Your task to perform on an android device: turn off javascript in the chrome app Image 0: 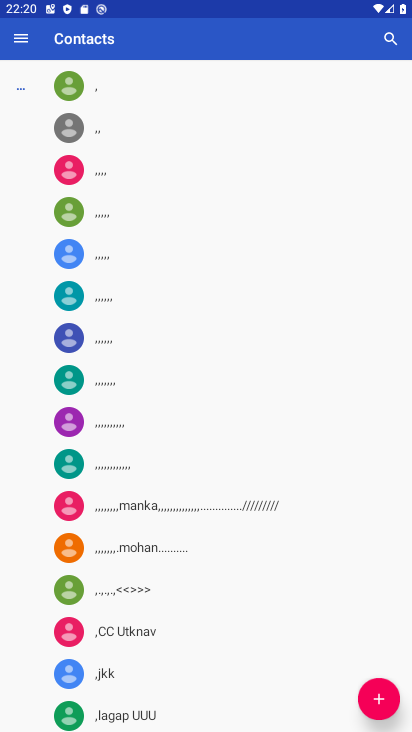
Step 0: drag from (237, 591) to (199, 188)
Your task to perform on an android device: turn off javascript in the chrome app Image 1: 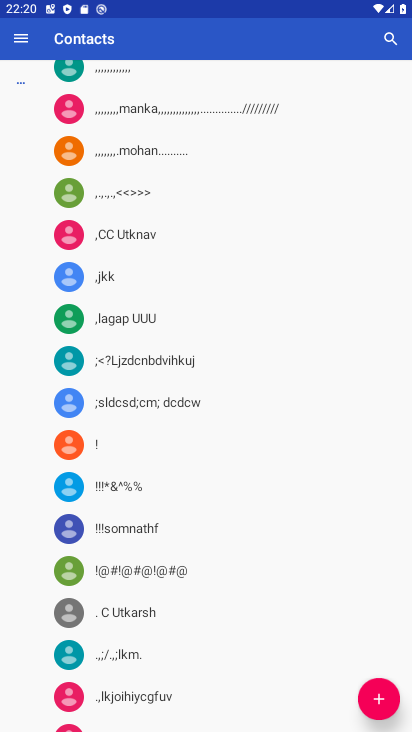
Step 1: press back button
Your task to perform on an android device: turn off javascript in the chrome app Image 2: 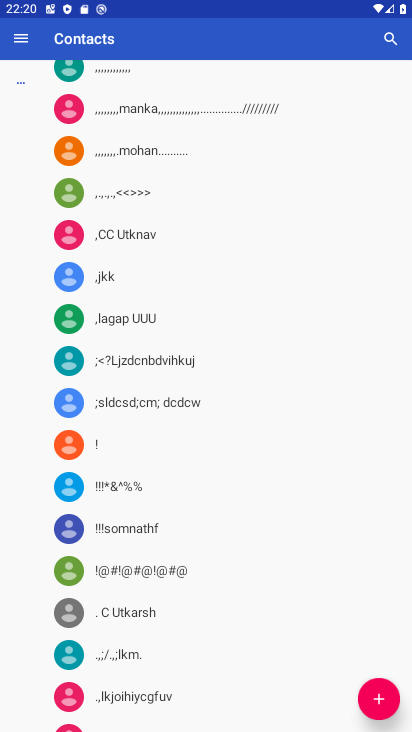
Step 2: press back button
Your task to perform on an android device: turn off javascript in the chrome app Image 3: 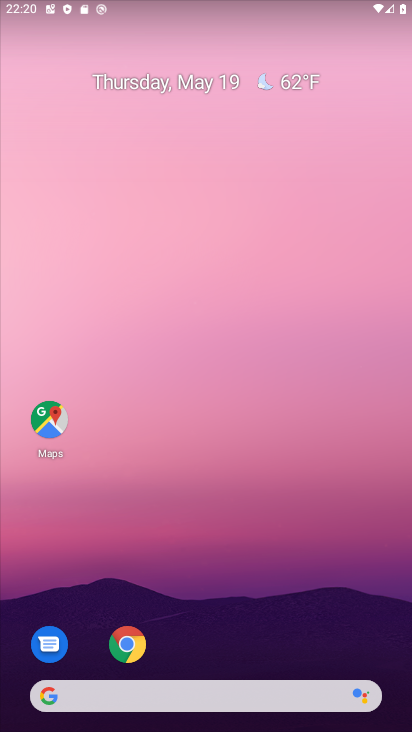
Step 3: drag from (279, 646) to (183, 3)
Your task to perform on an android device: turn off javascript in the chrome app Image 4: 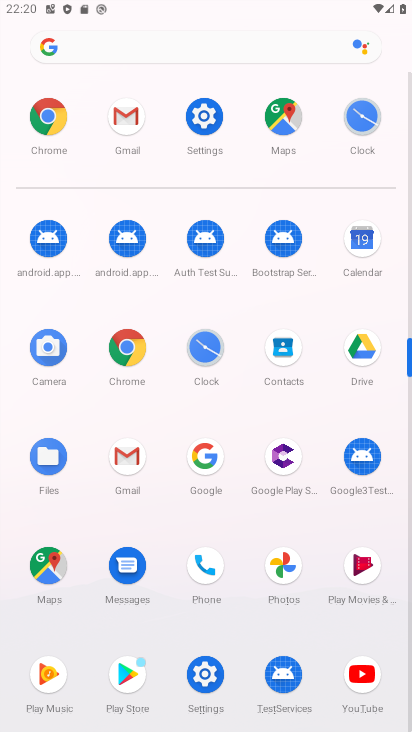
Step 4: click (122, 353)
Your task to perform on an android device: turn off javascript in the chrome app Image 5: 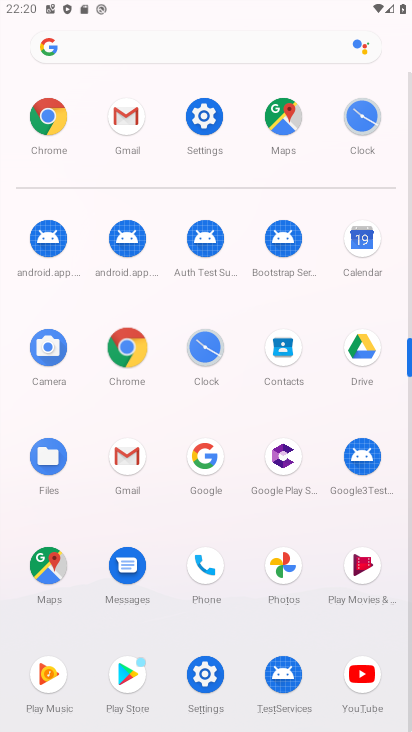
Step 5: click (122, 353)
Your task to perform on an android device: turn off javascript in the chrome app Image 6: 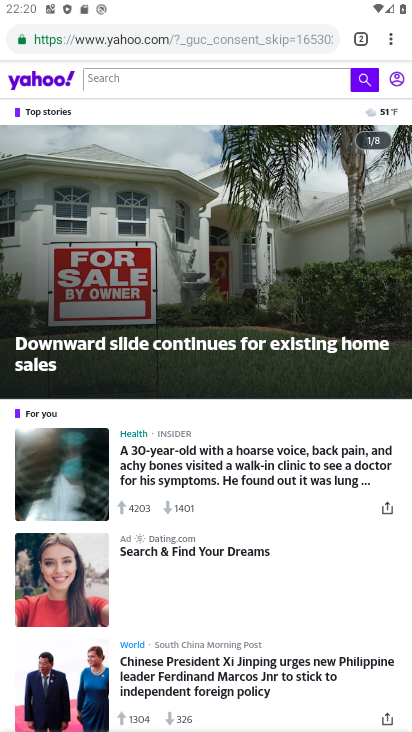
Step 6: drag from (387, 34) to (241, 519)
Your task to perform on an android device: turn off javascript in the chrome app Image 7: 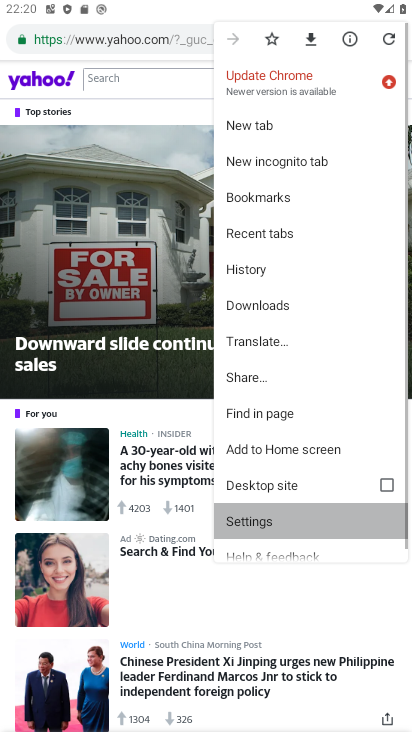
Step 7: click (242, 520)
Your task to perform on an android device: turn off javascript in the chrome app Image 8: 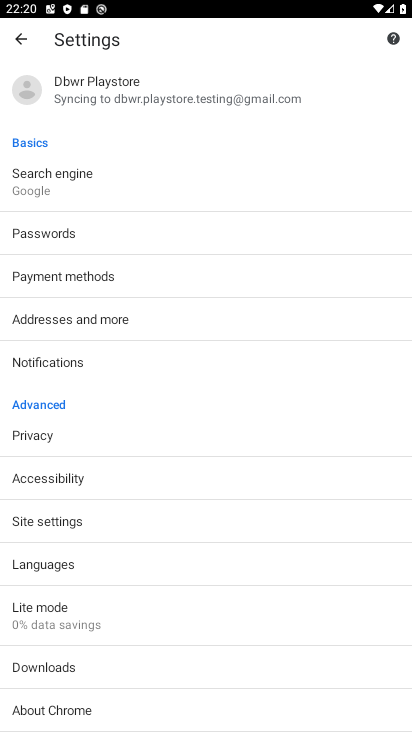
Step 8: click (40, 505)
Your task to perform on an android device: turn off javascript in the chrome app Image 9: 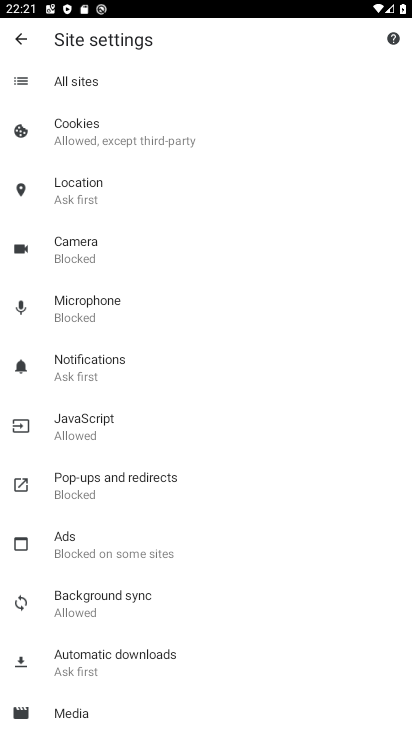
Step 9: click (67, 420)
Your task to perform on an android device: turn off javascript in the chrome app Image 10: 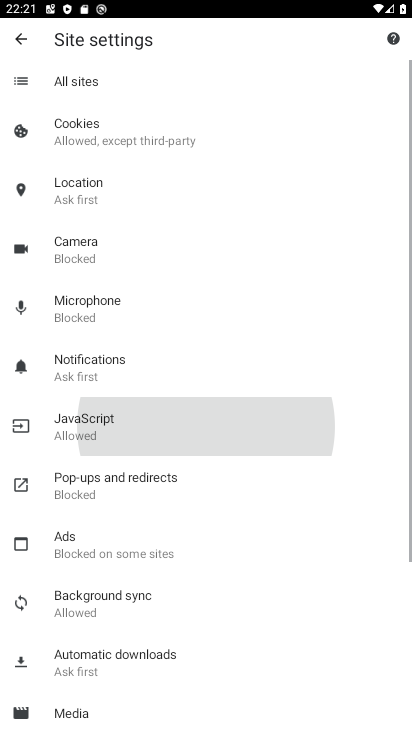
Step 10: click (67, 420)
Your task to perform on an android device: turn off javascript in the chrome app Image 11: 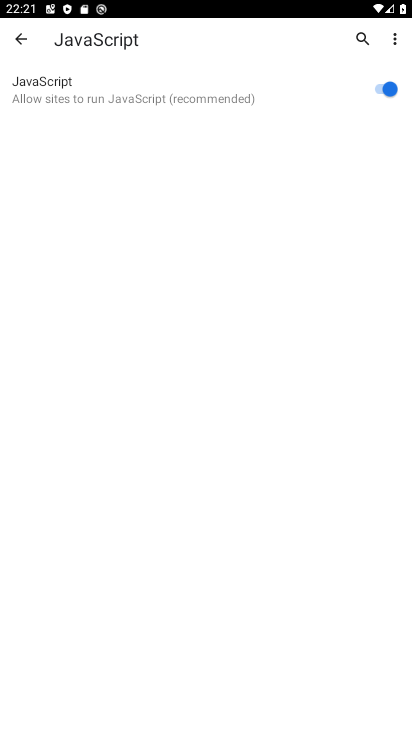
Step 11: click (385, 88)
Your task to perform on an android device: turn off javascript in the chrome app Image 12: 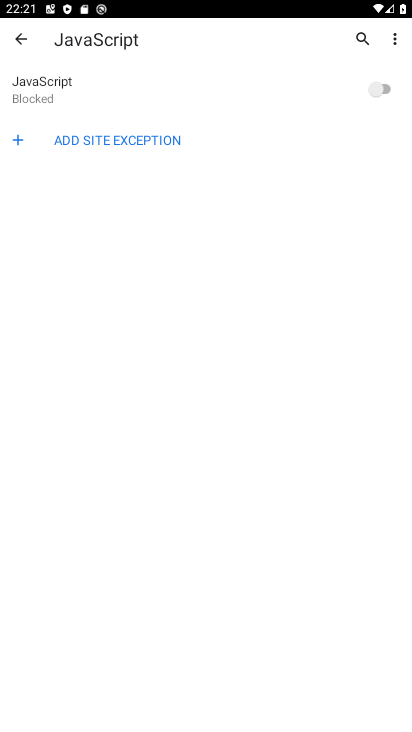
Step 12: task complete